Your task to perform on an android device: open the mobile data screen to see how much data has been used Image 0: 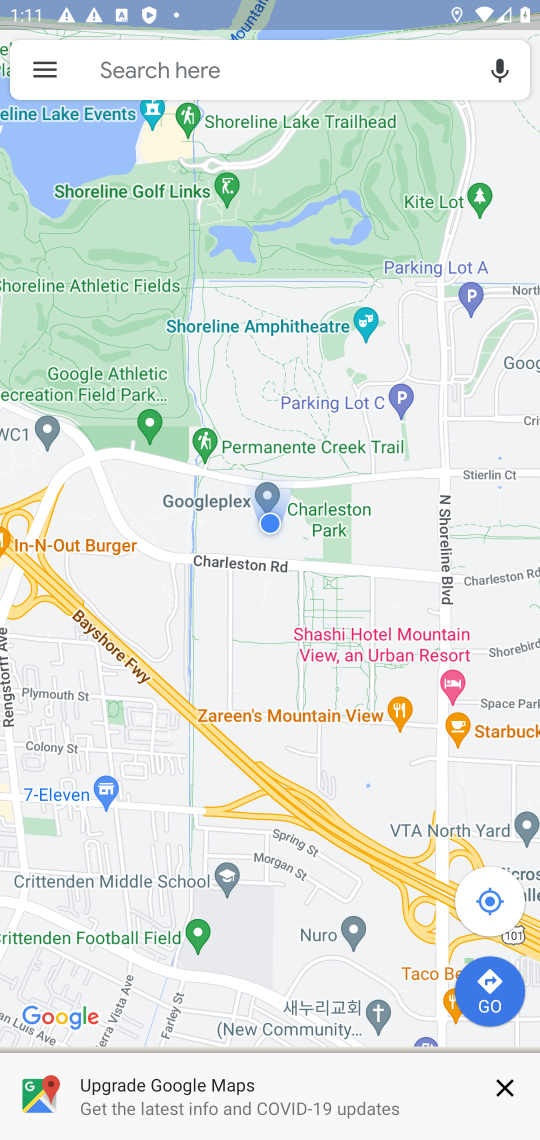
Step 0: press home button
Your task to perform on an android device: open the mobile data screen to see how much data has been used Image 1: 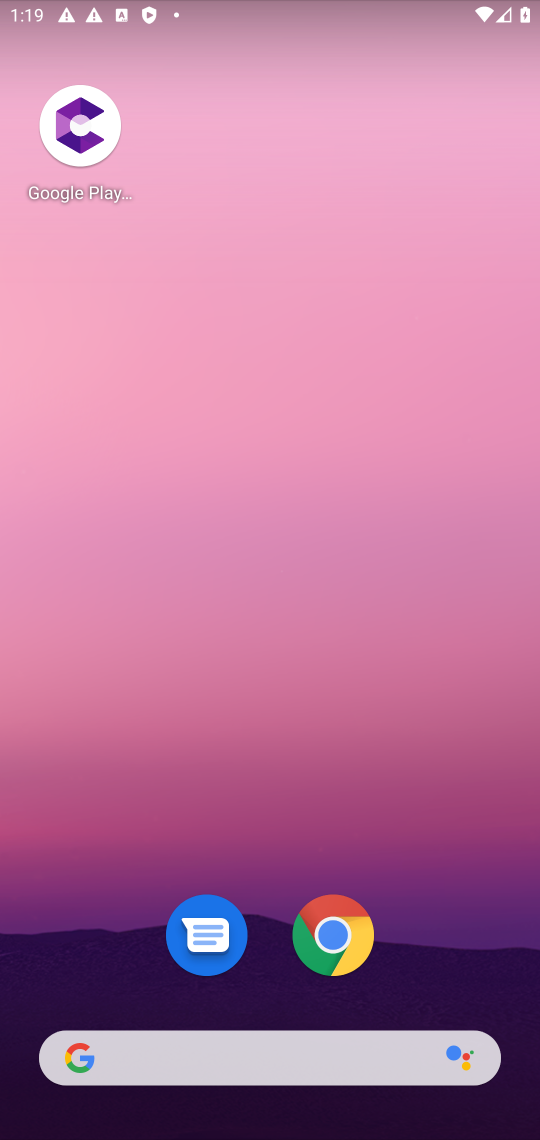
Step 1: drag from (135, 1050) to (348, 1)
Your task to perform on an android device: open the mobile data screen to see how much data has been used Image 2: 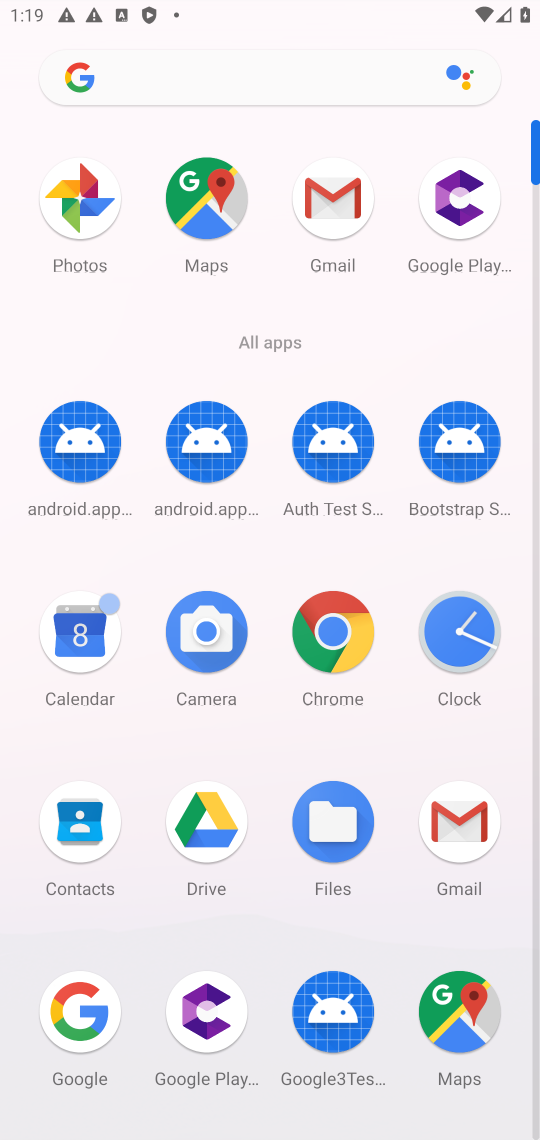
Step 2: drag from (280, 940) to (277, 425)
Your task to perform on an android device: open the mobile data screen to see how much data has been used Image 3: 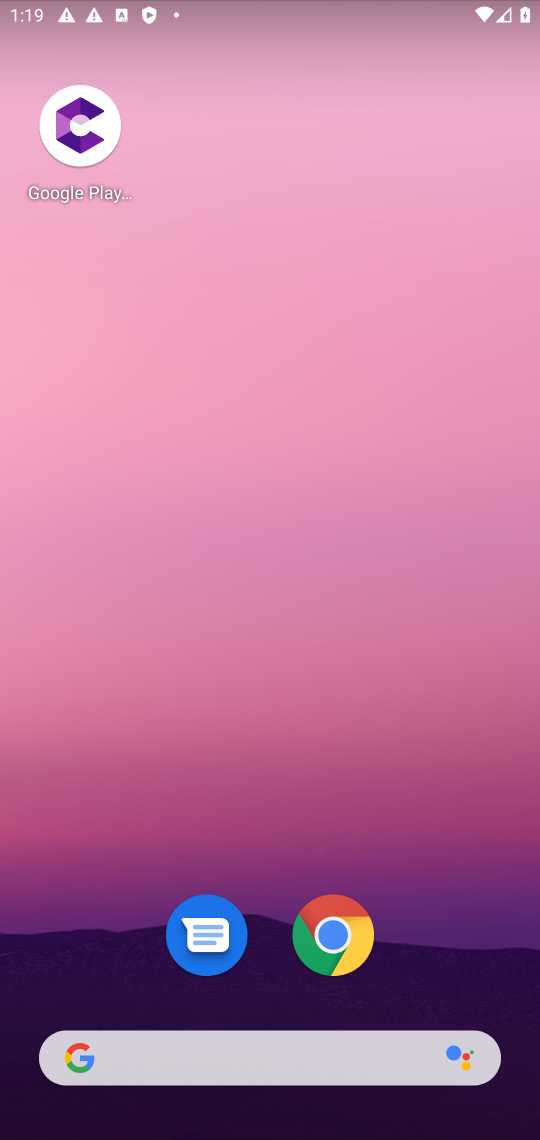
Step 3: drag from (255, 1087) to (232, 107)
Your task to perform on an android device: open the mobile data screen to see how much data has been used Image 4: 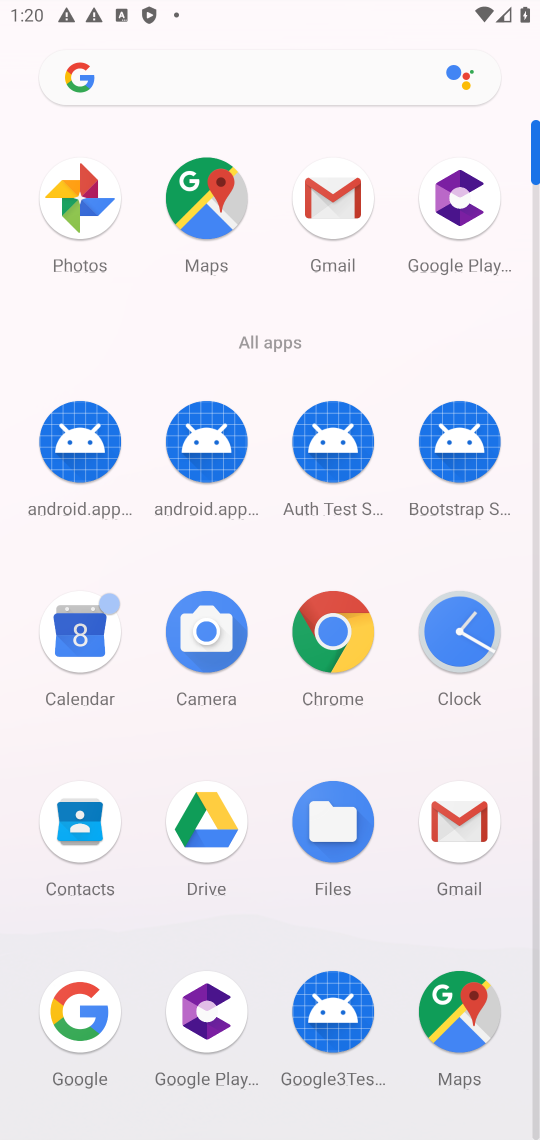
Step 4: drag from (286, 709) to (254, 252)
Your task to perform on an android device: open the mobile data screen to see how much data has been used Image 5: 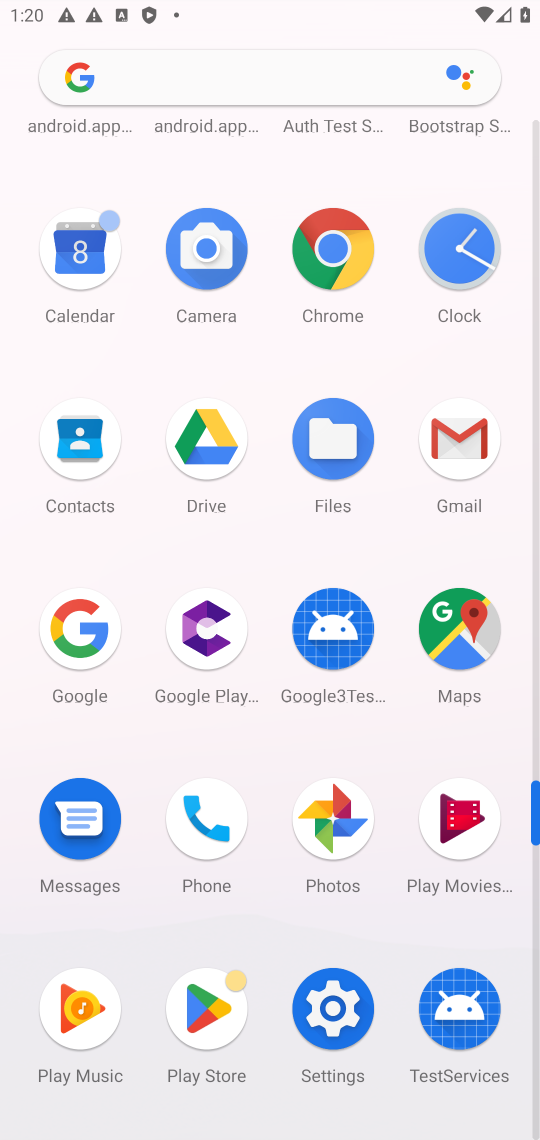
Step 5: click (361, 1013)
Your task to perform on an android device: open the mobile data screen to see how much data has been used Image 6: 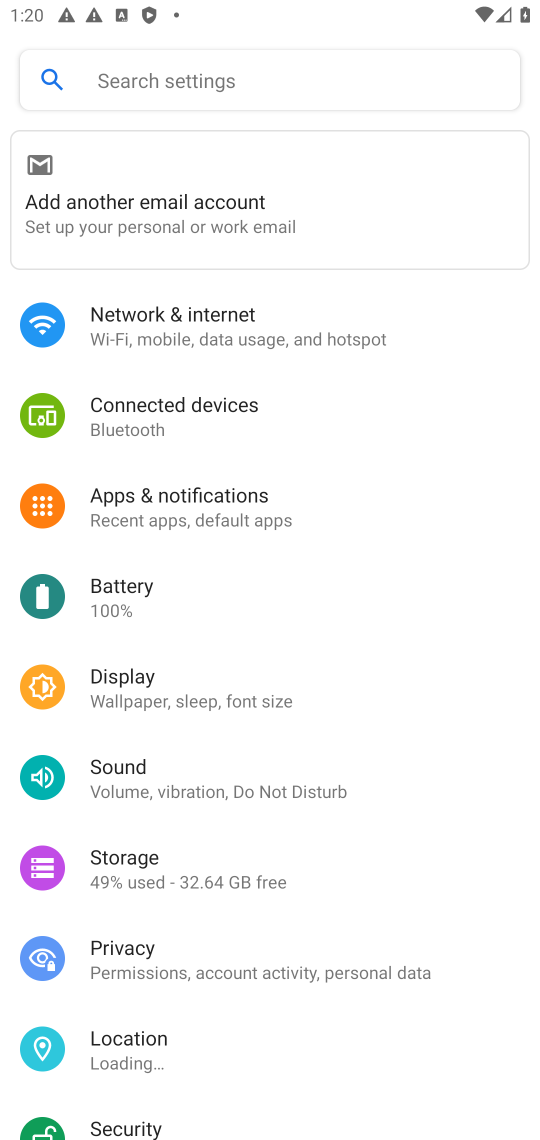
Step 6: click (182, 421)
Your task to perform on an android device: open the mobile data screen to see how much data has been used Image 7: 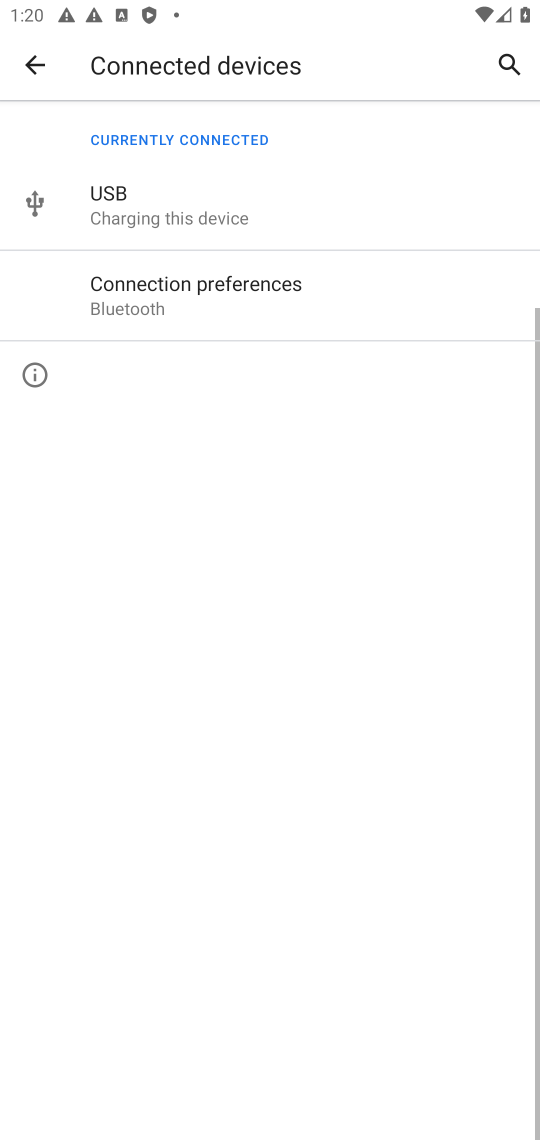
Step 7: task complete